Your task to perform on an android device: What's the weather today? Image 0: 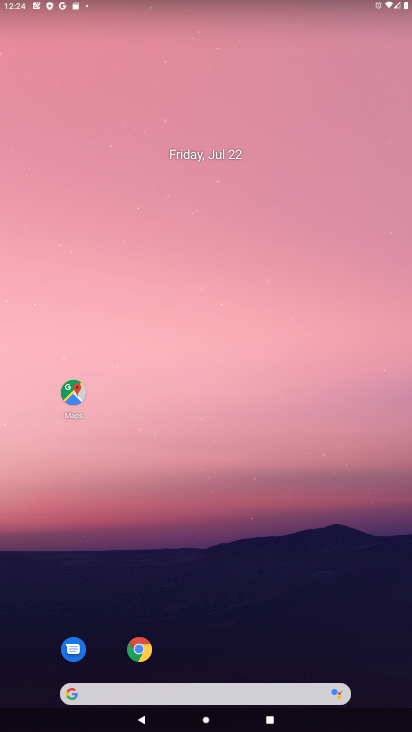
Step 0: drag from (264, 681) to (266, 193)
Your task to perform on an android device: What's the weather today? Image 1: 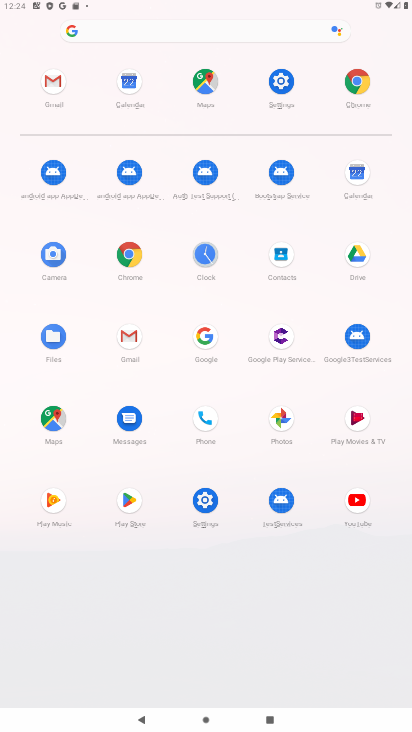
Step 1: click (361, 73)
Your task to perform on an android device: What's the weather today? Image 2: 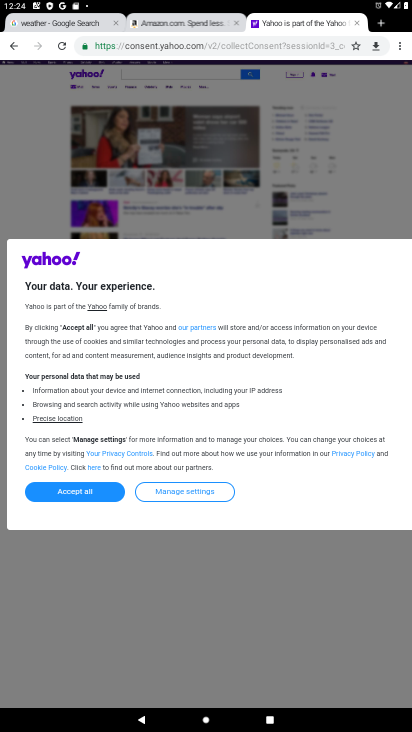
Step 2: click (274, 48)
Your task to perform on an android device: What's the weather today? Image 3: 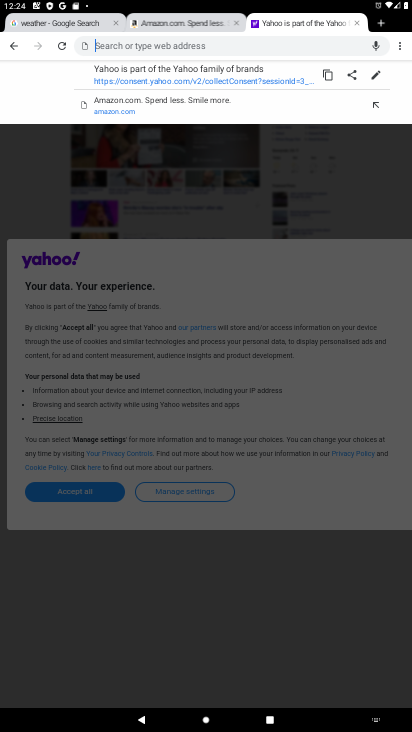
Step 3: type "weather'"
Your task to perform on an android device: What's the weather today? Image 4: 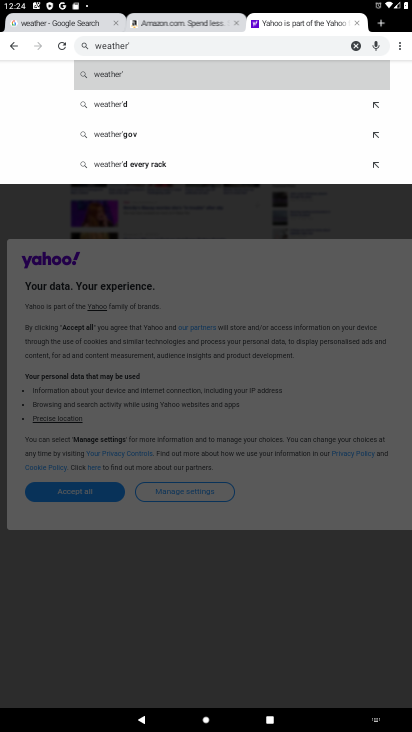
Step 4: click (222, 73)
Your task to perform on an android device: What's the weather today? Image 5: 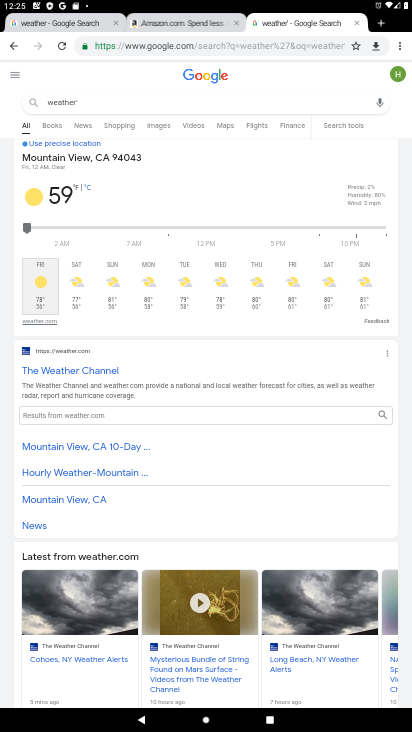
Step 5: task complete